Your task to perform on an android device: Go to Wikipedia Image 0: 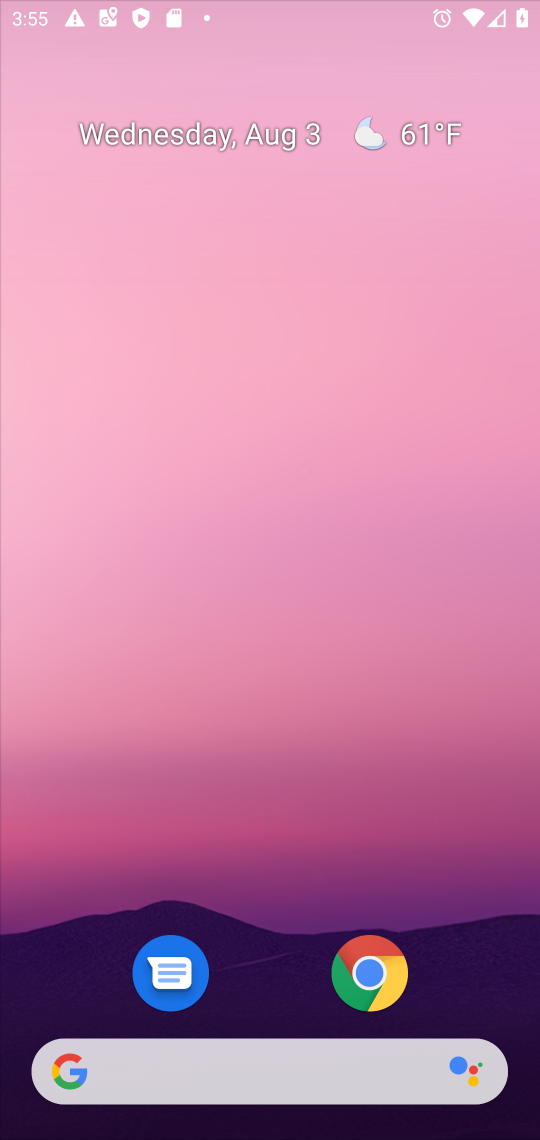
Step 0: task complete